Your task to perform on an android device: Open settings Image 0: 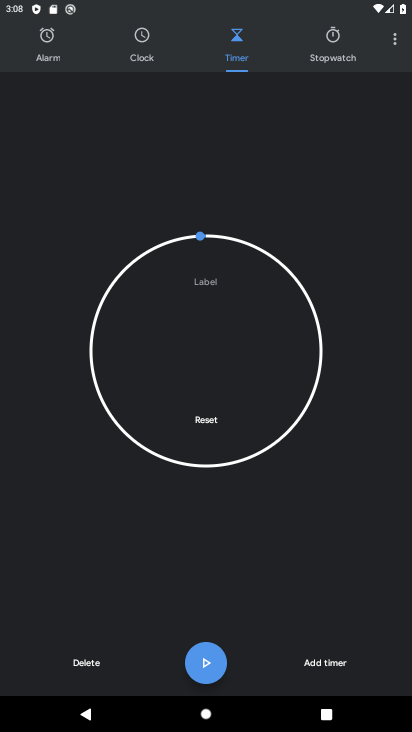
Step 0: press home button
Your task to perform on an android device: Open settings Image 1: 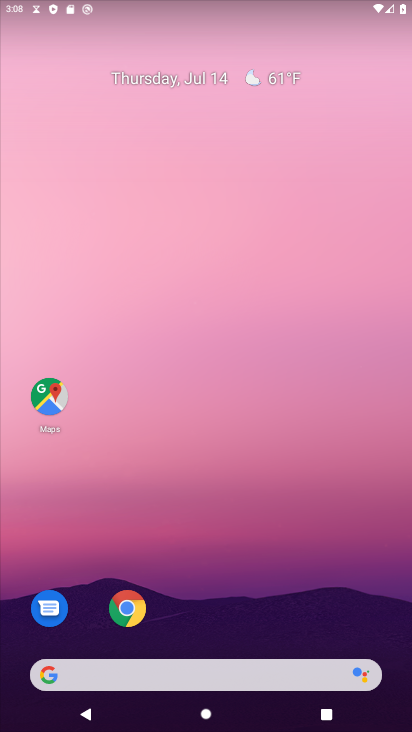
Step 1: click (189, 123)
Your task to perform on an android device: Open settings Image 2: 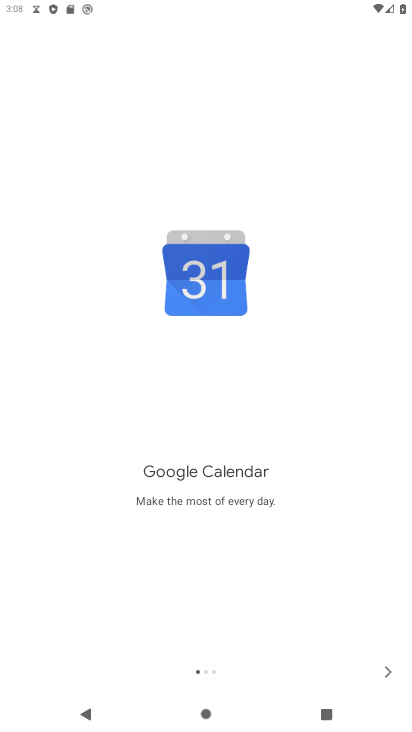
Step 2: press home button
Your task to perform on an android device: Open settings Image 3: 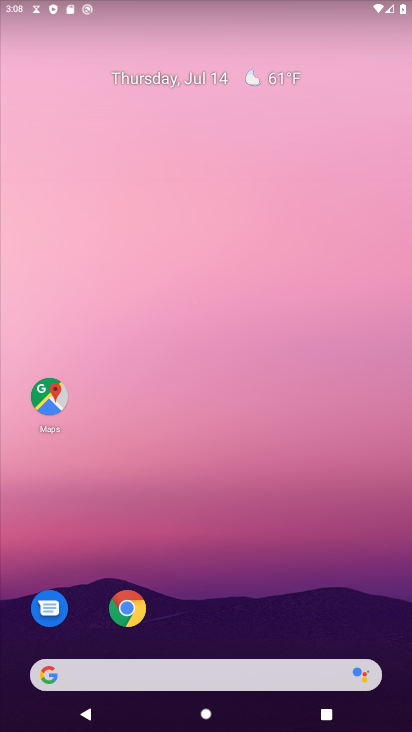
Step 3: drag from (198, 669) to (159, 7)
Your task to perform on an android device: Open settings Image 4: 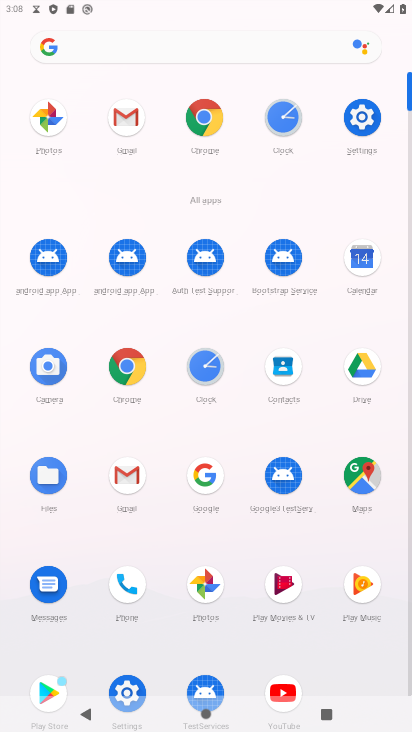
Step 4: click (361, 114)
Your task to perform on an android device: Open settings Image 5: 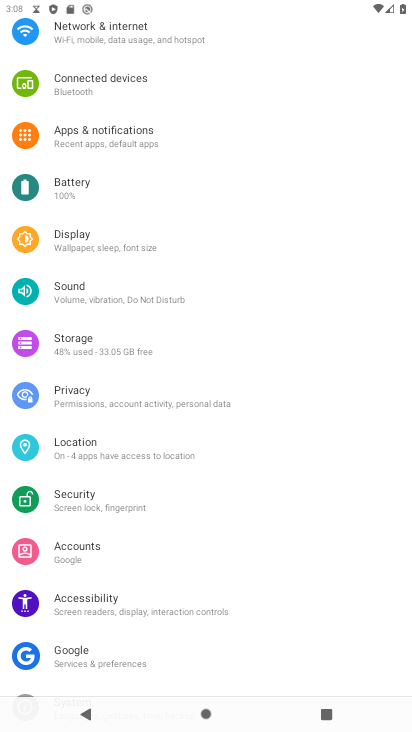
Step 5: task complete